Your task to perform on an android device: turn on improve location accuracy Image 0: 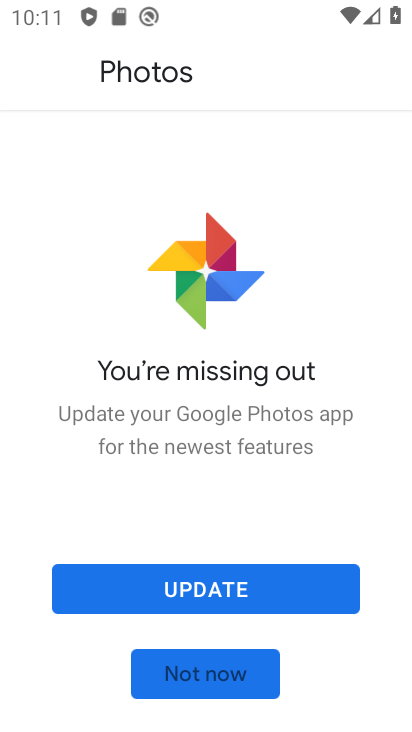
Step 0: press home button
Your task to perform on an android device: turn on improve location accuracy Image 1: 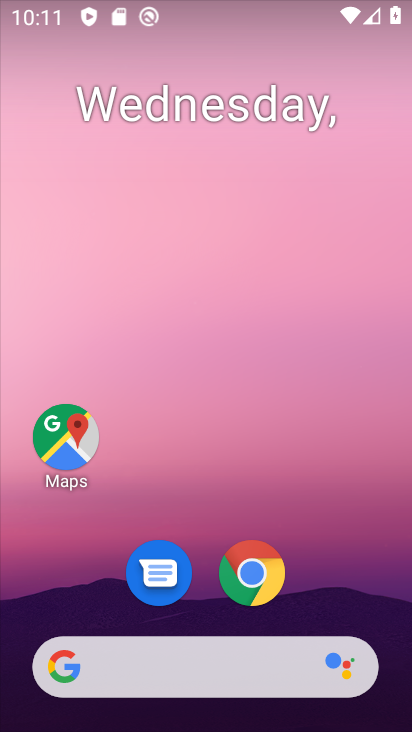
Step 1: click (369, 253)
Your task to perform on an android device: turn on improve location accuracy Image 2: 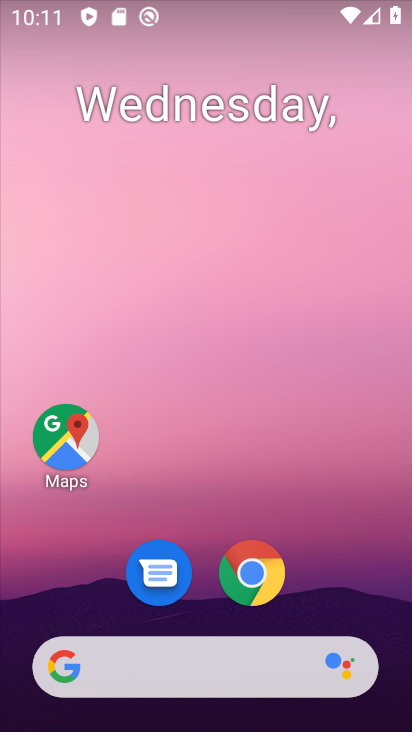
Step 2: click (368, 167)
Your task to perform on an android device: turn on improve location accuracy Image 3: 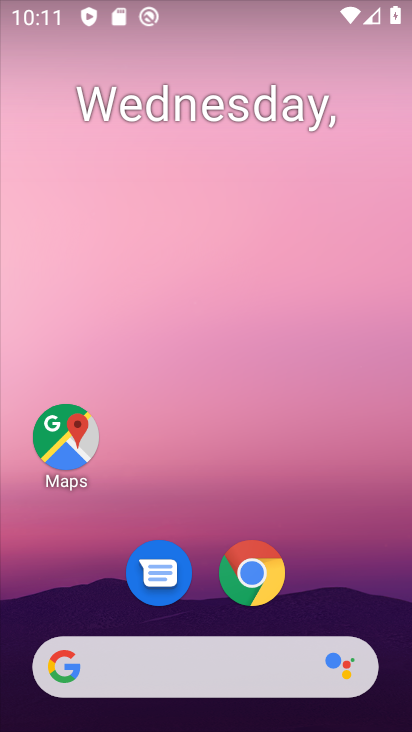
Step 3: drag from (368, 591) to (364, 102)
Your task to perform on an android device: turn on improve location accuracy Image 4: 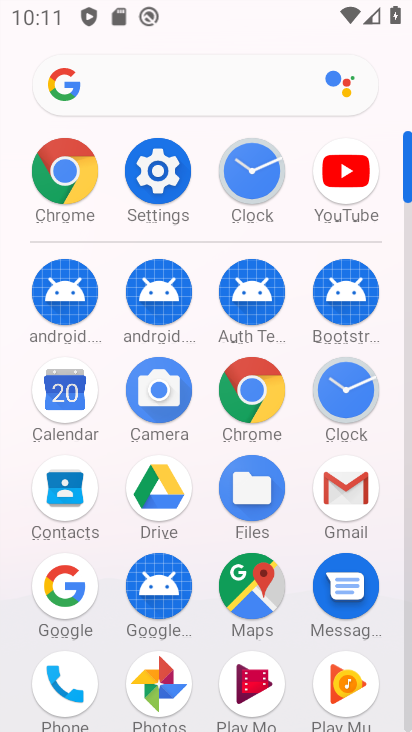
Step 4: click (155, 183)
Your task to perform on an android device: turn on improve location accuracy Image 5: 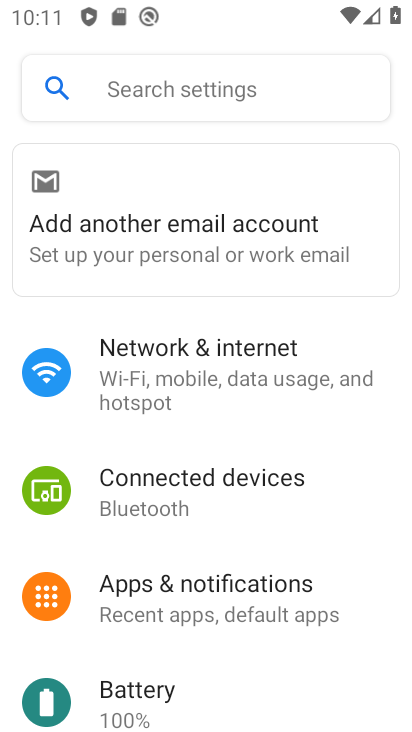
Step 5: drag from (351, 671) to (352, 413)
Your task to perform on an android device: turn on improve location accuracy Image 6: 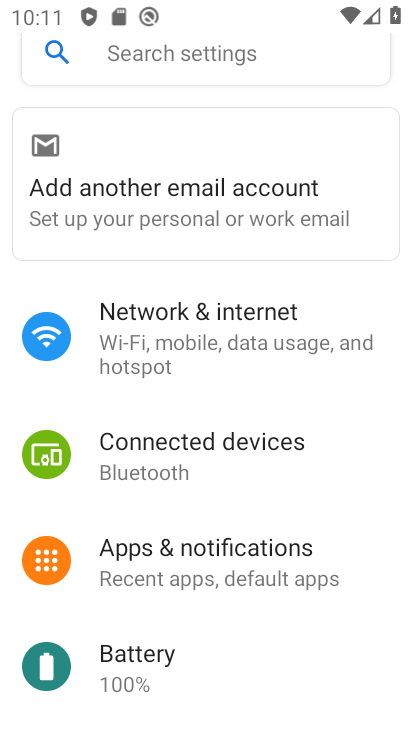
Step 6: drag from (369, 602) to (380, 399)
Your task to perform on an android device: turn on improve location accuracy Image 7: 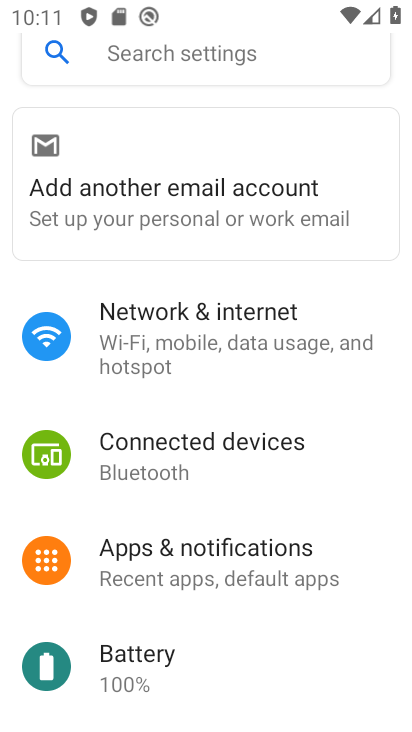
Step 7: drag from (371, 565) to (382, 313)
Your task to perform on an android device: turn on improve location accuracy Image 8: 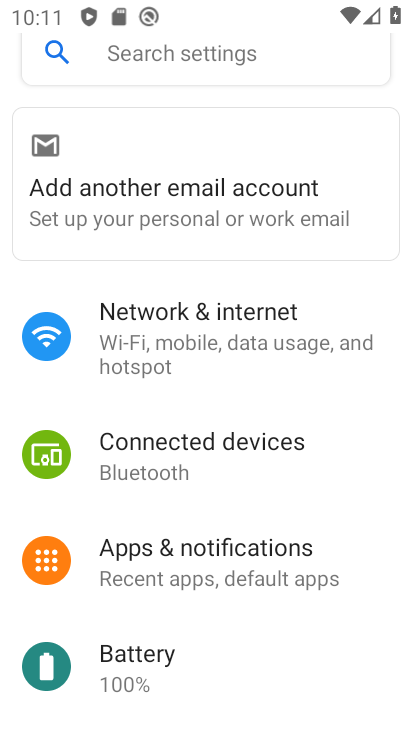
Step 8: drag from (363, 588) to (352, 386)
Your task to perform on an android device: turn on improve location accuracy Image 9: 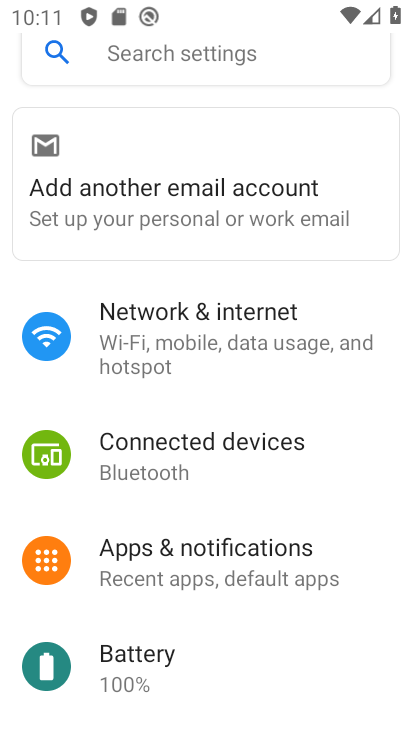
Step 9: drag from (359, 682) to (360, 393)
Your task to perform on an android device: turn on improve location accuracy Image 10: 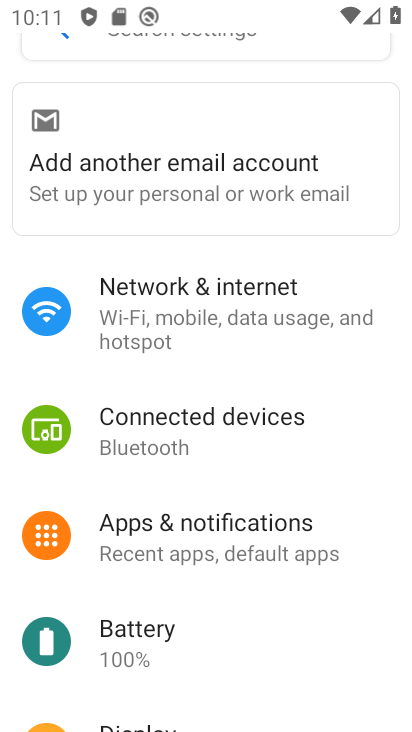
Step 10: drag from (350, 679) to (365, 302)
Your task to perform on an android device: turn on improve location accuracy Image 11: 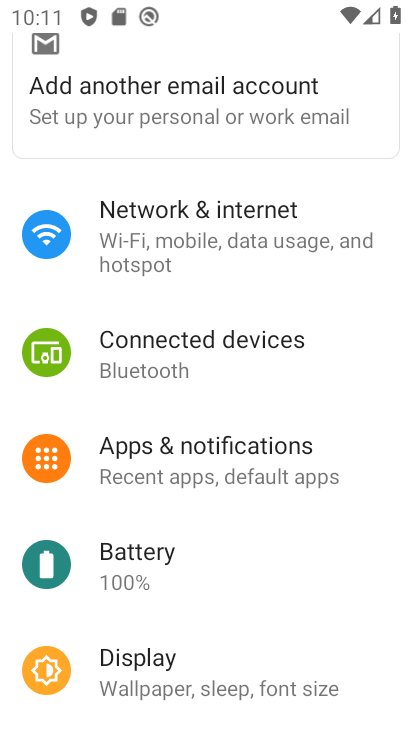
Step 11: drag from (338, 625) to (344, 269)
Your task to perform on an android device: turn on improve location accuracy Image 12: 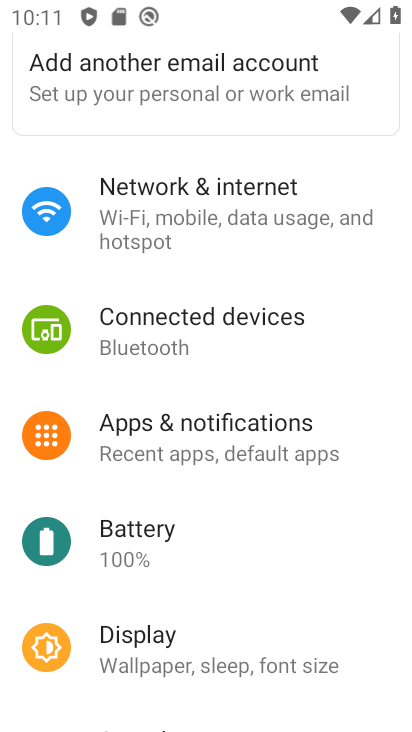
Step 12: drag from (384, 669) to (395, 227)
Your task to perform on an android device: turn on improve location accuracy Image 13: 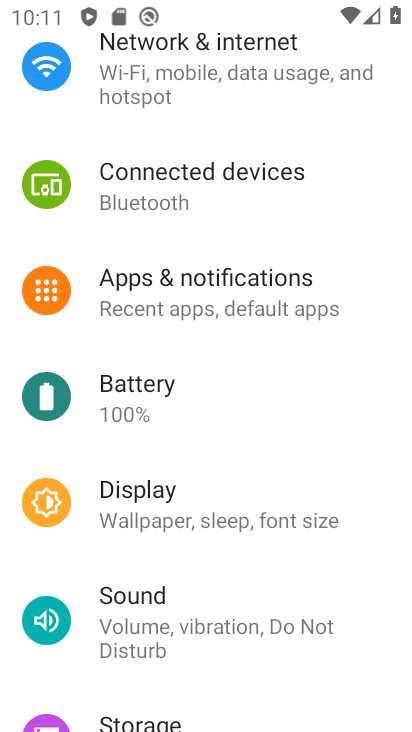
Step 13: drag from (356, 673) to (381, 287)
Your task to perform on an android device: turn on improve location accuracy Image 14: 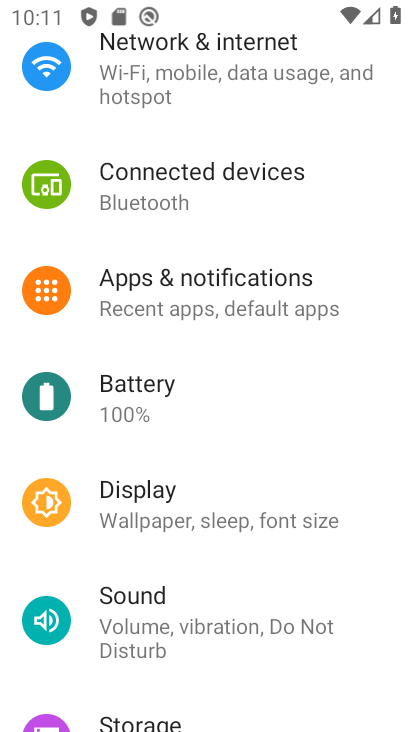
Step 14: drag from (368, 623) to (378, 369)
Your task to perform on an android device: turn on improve location accuracy Image 15: 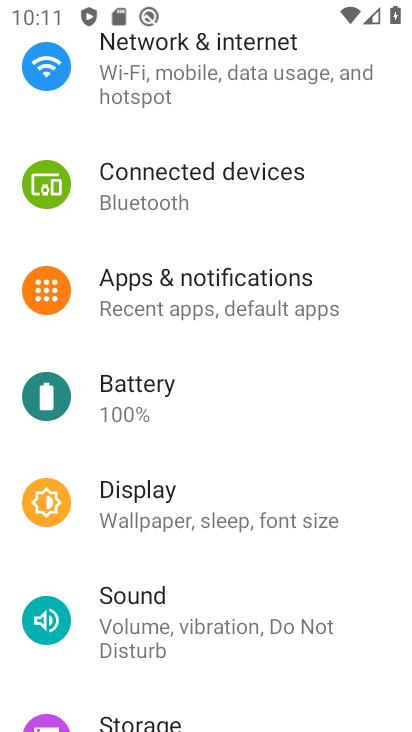
Step 15: drag from (362, 687) to (384, 341)
Your task to perform on an android device: turn on improve location accuracy Image 16: 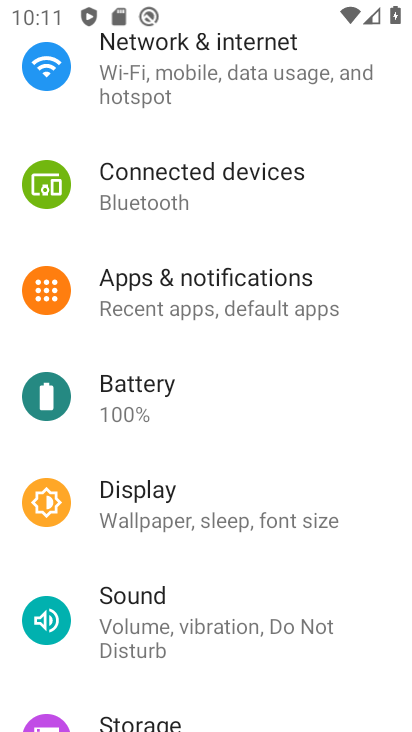
Step 16: drag from (378, 374) to (389, 211)
Your task to perform on an android device: turn on improve location accuracy Image 17: 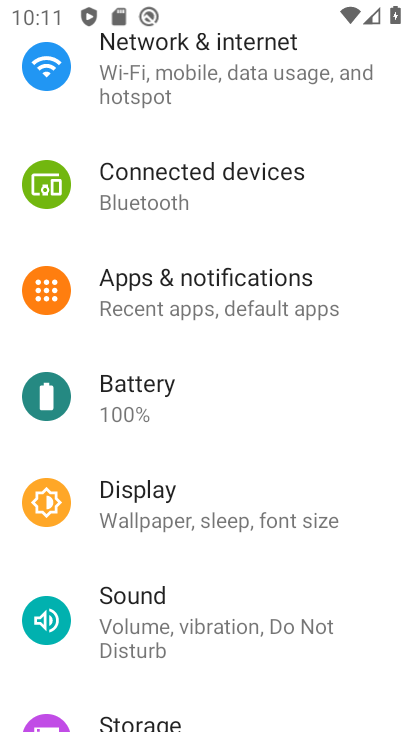
Step 17: drag from (363, 583) to (374, 290)
Your task to perform on an android device: turn on improve location accuracy Image 18: 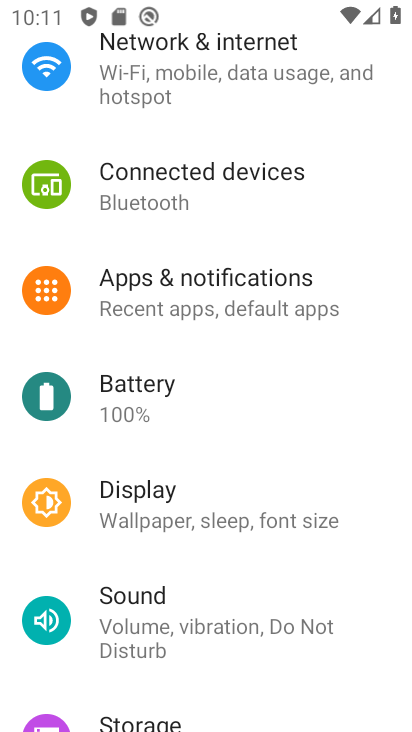
Step 18: drag from (364, 631) to (378, 346)
Your task to perform on an android device: turn on improve location accuracy Image 19: 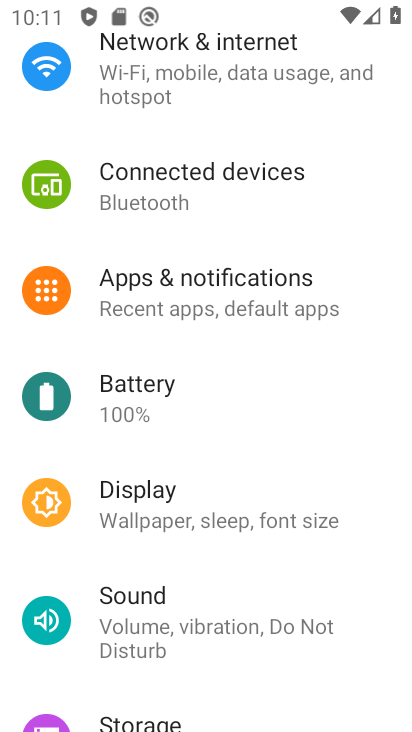
Step 19: drag from (353, 617) to (368, 358)
Your task to perform on an android device: turn on improve location accuracy Image 20: 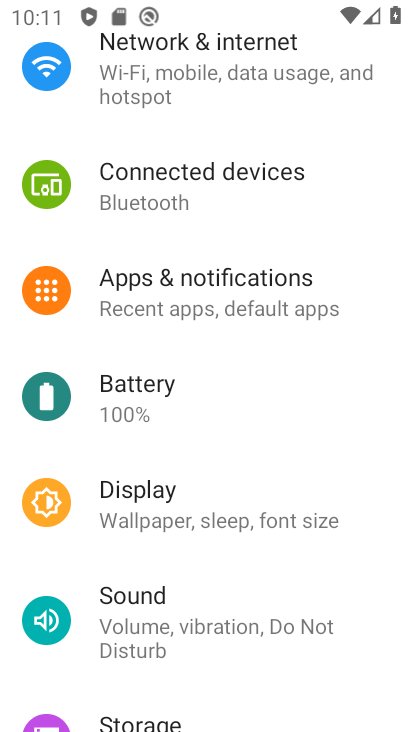
Step 20: click (397, 300)
Your task to perform on an android device: turn on improve location accuracy Image 21: 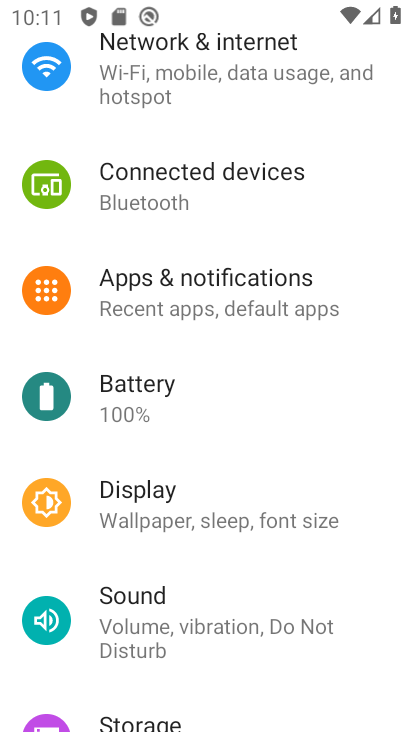
Step 21: drag from (393, 530) to (395, 237)
Your task to perform on an android device: turn on improve location accuracy Image 22: 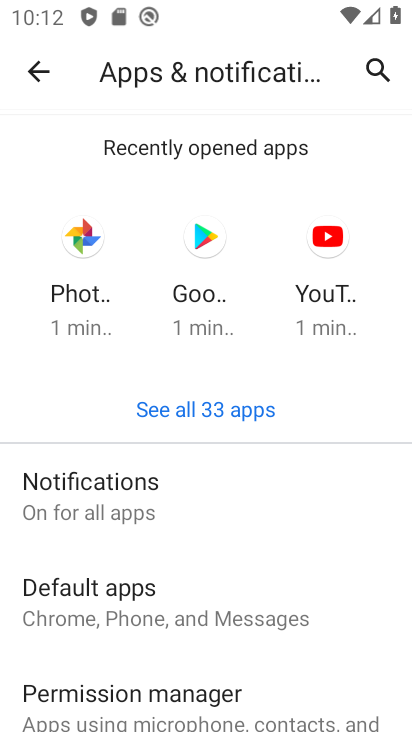
Step 22: click (31, 74)
Your task to perform on an android device: turn on improve location accuracy Image 23: 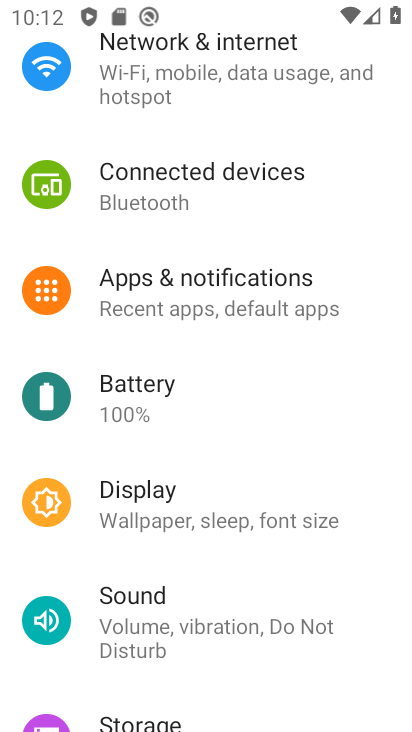
Step 23: drag from (363, 680) to (387, 202)
Your task to perform on an android device: turn on improve location accuracy Image 24: 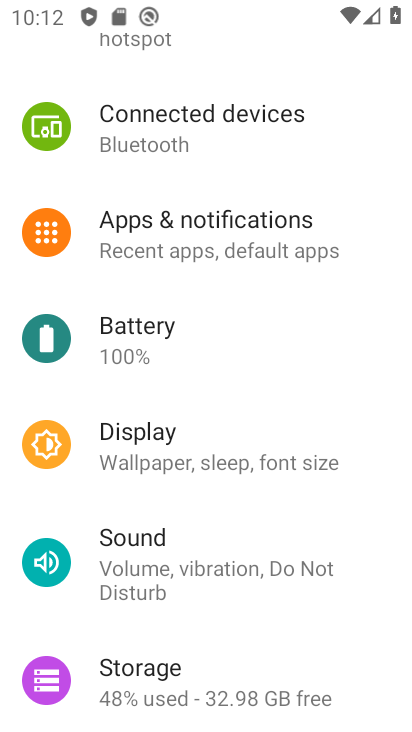
Step 24: drag from (373, 402) to (378, 171)
Your task to perform on an android device: turn on improve location accuracy Image 25: 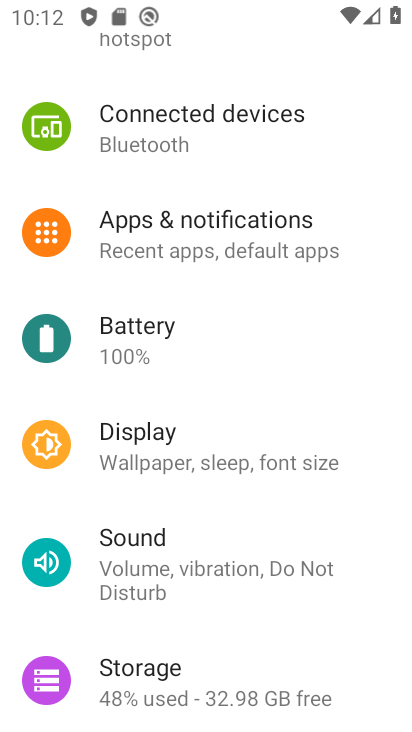
Step 25: drag from (369, 653) to (360, 235)
Your task to perform on an android device: turn on improve location accuracy Image 26: 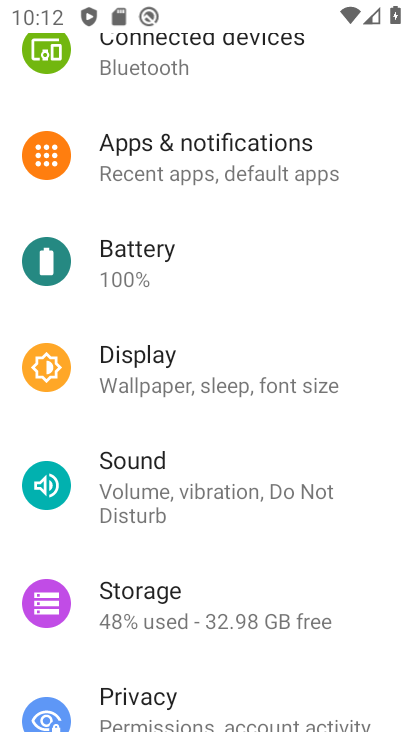
Step 26: drag from (380, 634) to (366, 313)
Your task to perform on an android device: turn on improve location accuracy Image 27: 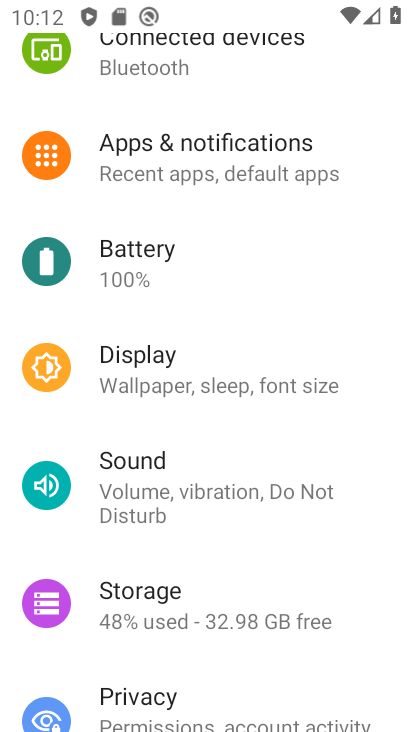
Step 27: drag from (359, 643) to (366, 276)
Your task to perform on an android device: turn on improve location accuracy Image 28: 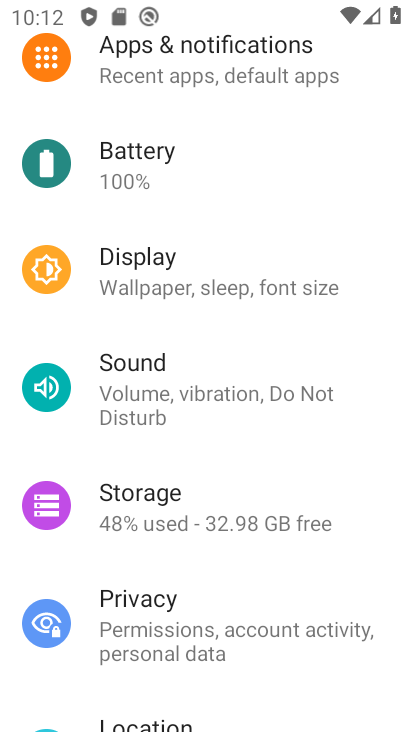
Step 28: click (168, 716)
Your task to perform on an android device: turn on improve location accuracy Image 29: 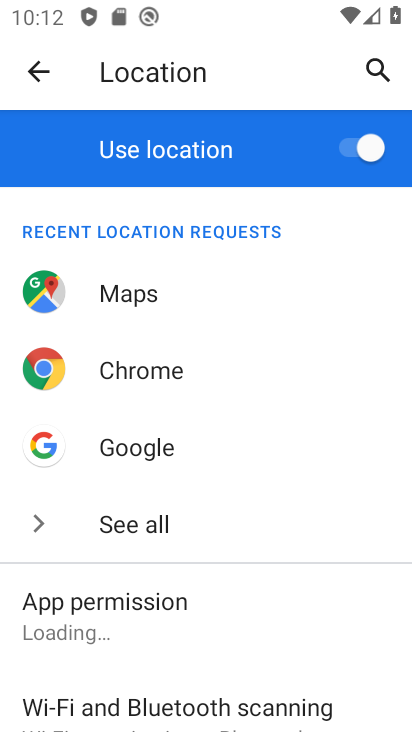
Step 29: drag from (374, 642) to (368, 268)
Your task to perform on an android device: turn on improve location accuracy Image 30: 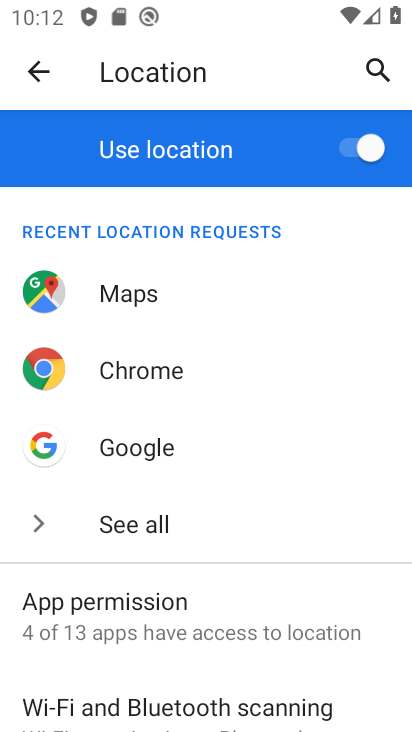
Step 30: drag from (343, 675) to (374, 288)
Your task to perform on an android device: turn on improve location accuracy Image 31: 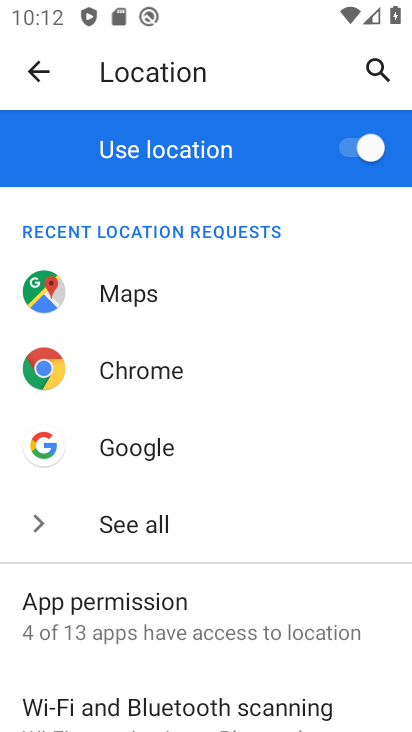
Step 31: drag from (333, 675) to (341, 354)
Your task to perform on an android device: turn on improve location accuracy Image 32: 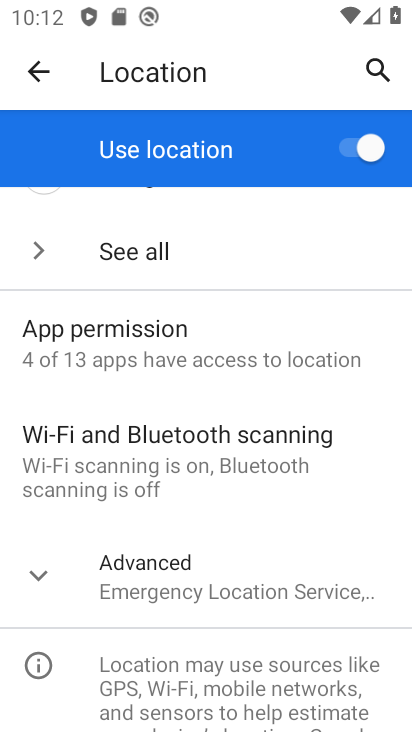
Step 32: drag from (335, 585) to (345, 301)
Your task to perform on an android device: turn on improve location accuracy Image 33: 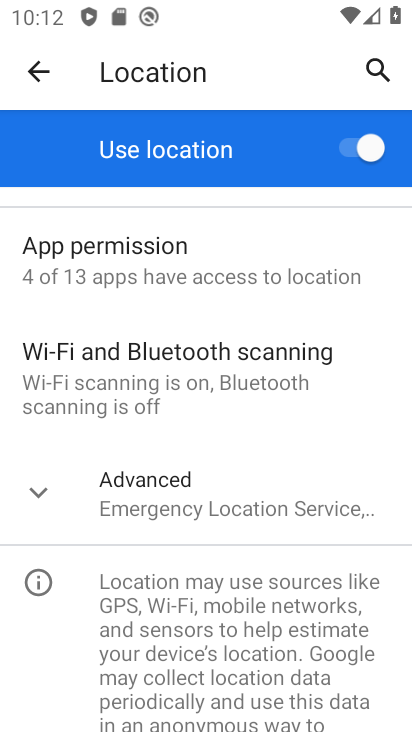
Step 33: click (48, 491)
Your task to perform on an android device: turn on improve location accuracy Image 34: 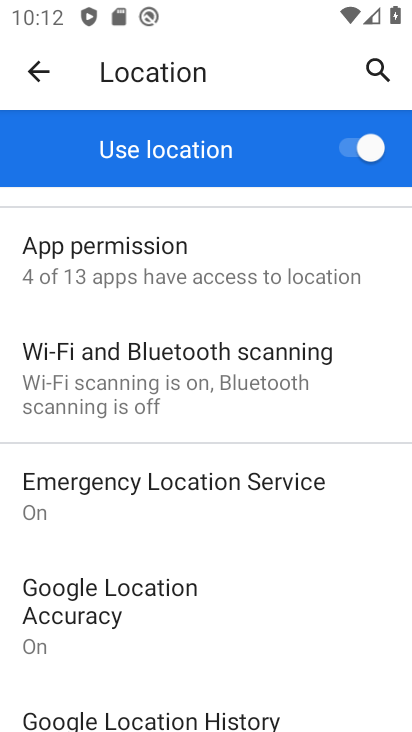
Step 34: click (87, 607)
Your task to perform on an android device: turn on improve location accuracy Image 35: 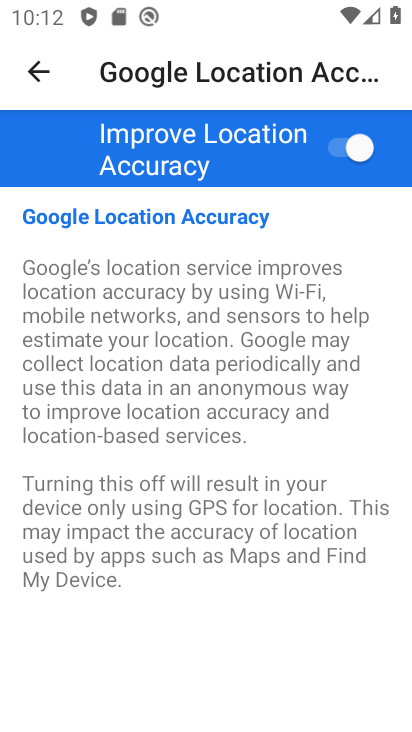
Step 35: task complete